Your task to perform on an android device: set the timer Image 0: 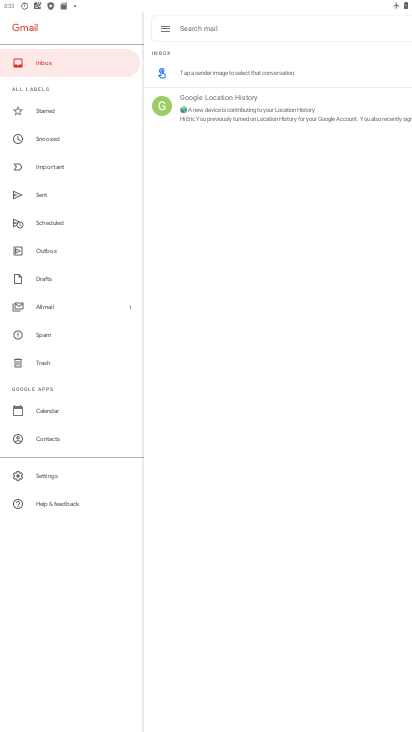
Step 0: press home button
Your task to perform on an android device: set the timer Image 1: 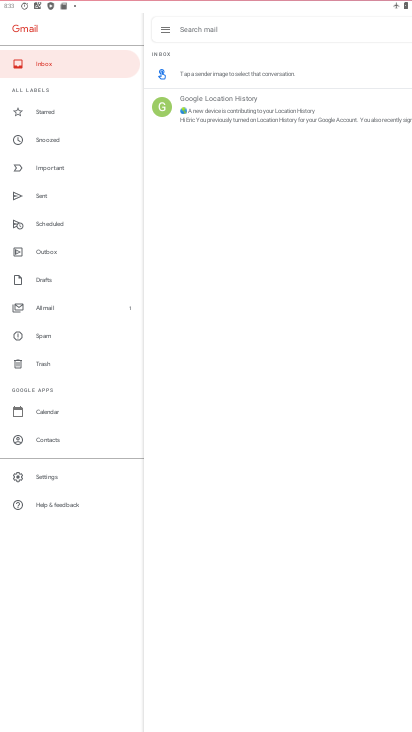
Step 1: press home button
Your task to perform on an android device: set the timer Image 2: 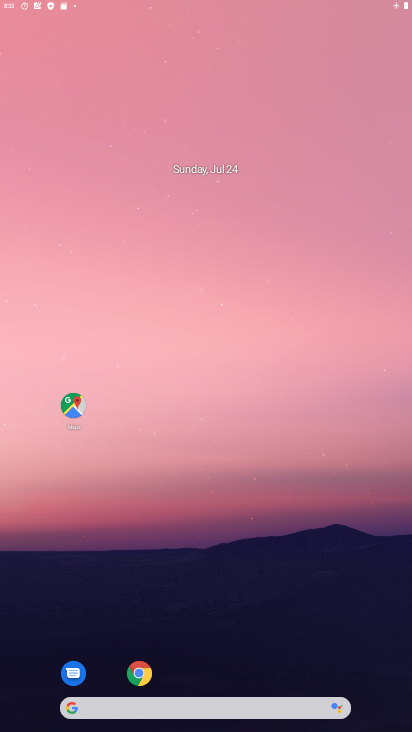
Step 2: drag from (167, 575) to (199, 38)
Your task to perform on an android device: set the timer Image 3: 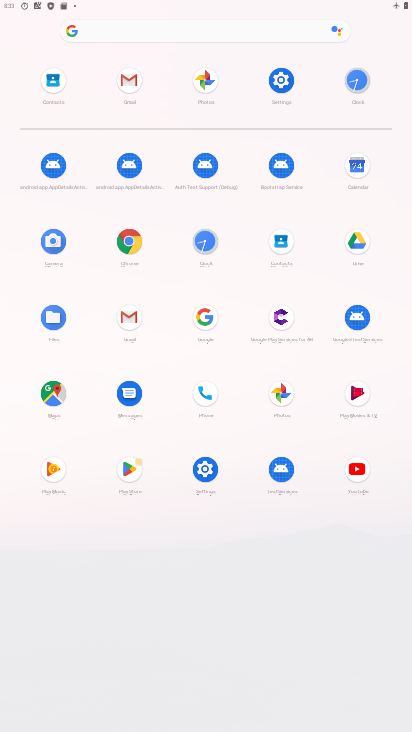
Step 3: click (200, 234)
Your task to perform on an android device: set the timer Image 4: 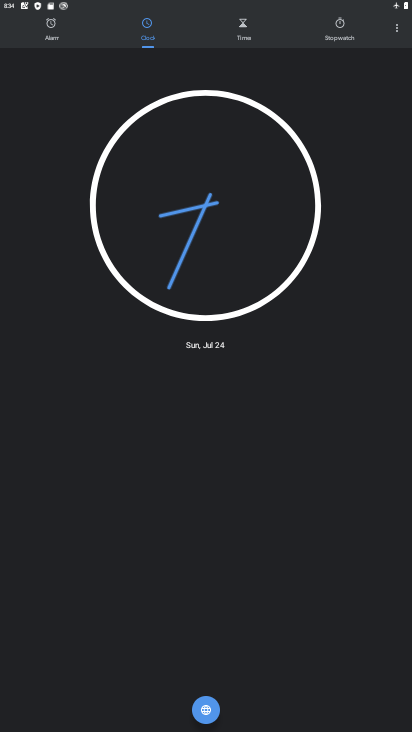
Step 4: click (235, 22)
Your task to perform on an android device: set the timer Image 5: 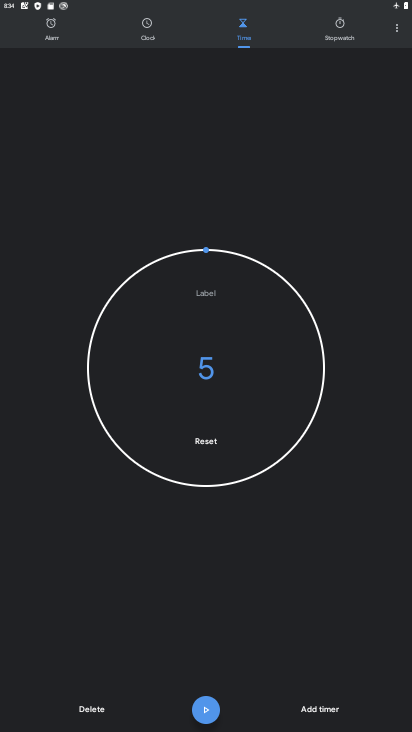
Step 5: click (205, 705)
Your task to perform on an android device: set the timer Image 6: 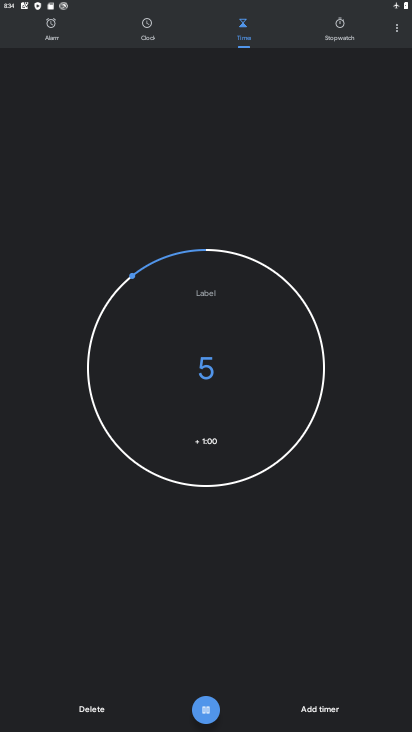
Step 6: task complete